Your task to perform on an android device: Search for seafood restaurants on Google Maps Image 0: 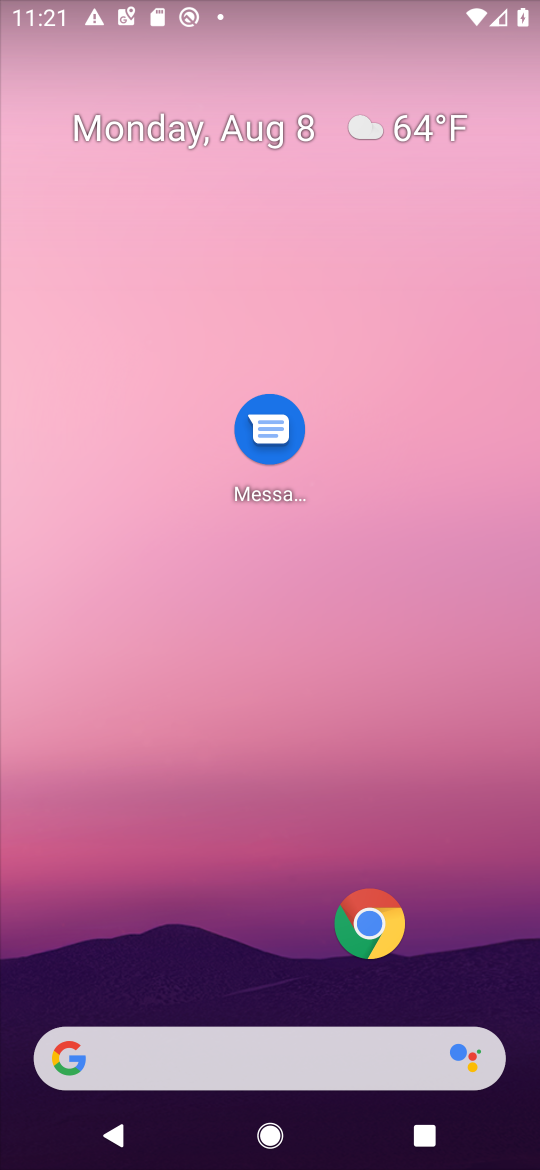
Step 0: drag from (58, 1126) to (410, 403)
Your task to perform on an android device: Search for seafood restaurants on Google Maps Image 1: 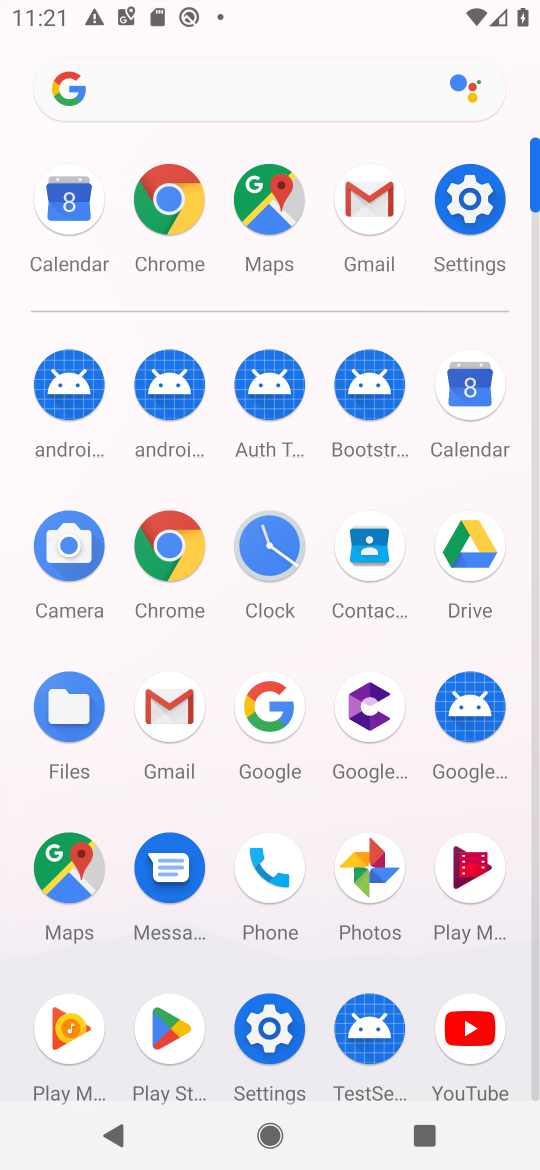
Step 1: click (75, 866)
Your task to perform on an android device: Search for seafood restaurants on Google Maps Image 2: 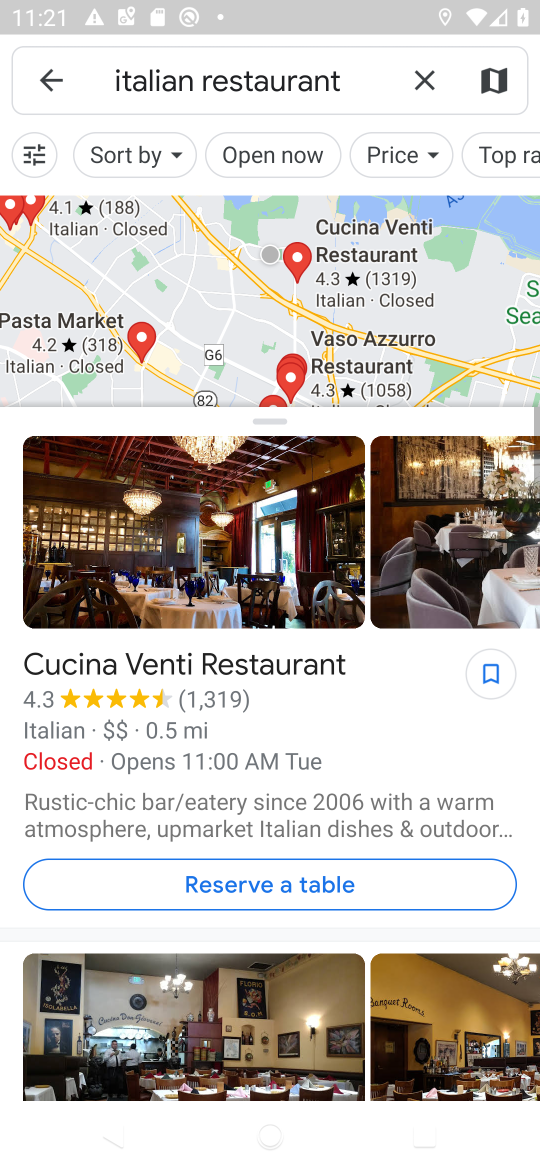
Step 2: click (43, 72)
Your task to perform on an android device: Search for seafood restaurants on Google Maps Image 3: 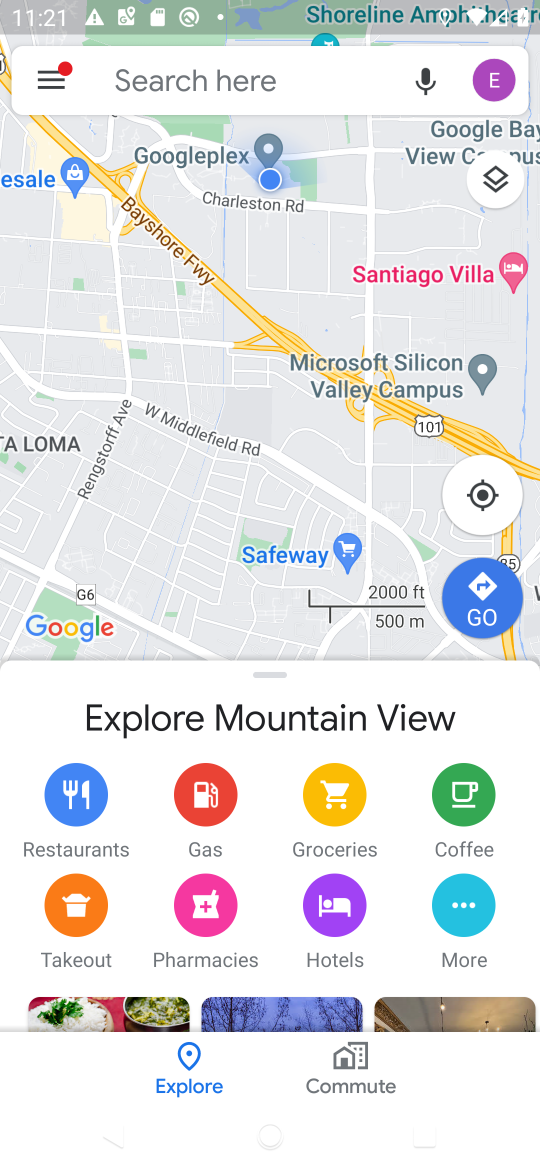
Step 3: click (153, 87)
Your task to perform on an android device: Search for seafood restaurants on Google Maps Image 4: 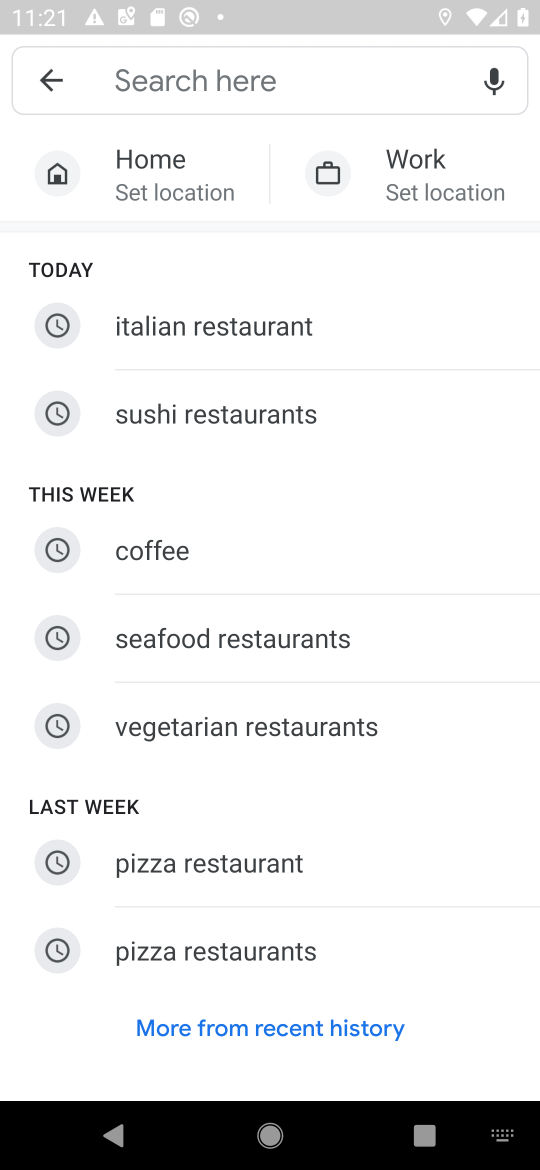
Step 4: click (187, 636)
Your task to perform on an android device: Search for seafood restaurants on Google Maps Image 5: 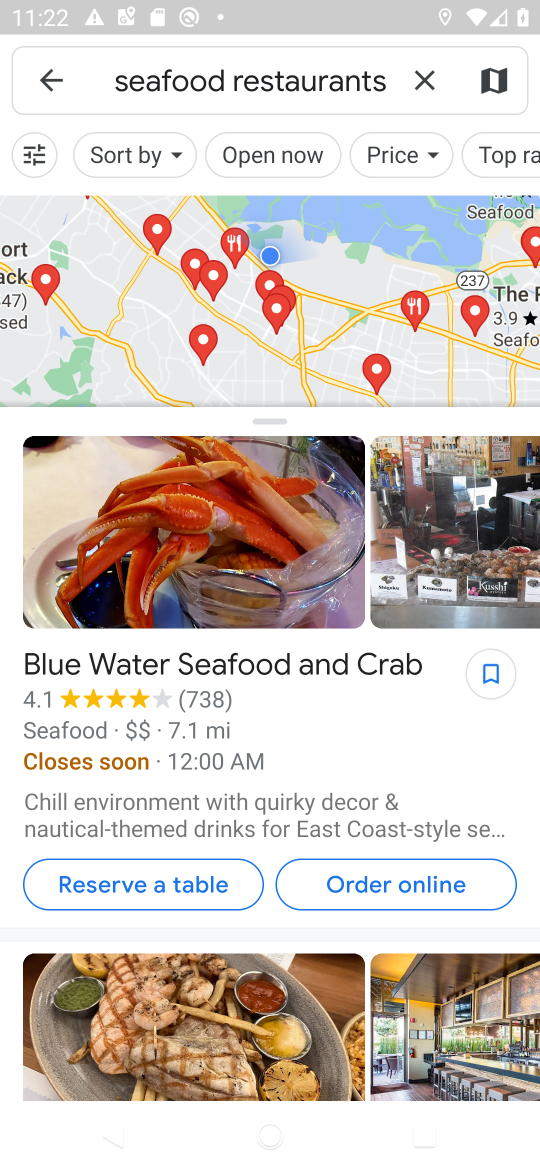
Step 5: task complete